Your task to perform on an android device: turn pop-ups off in chrome Image 0: 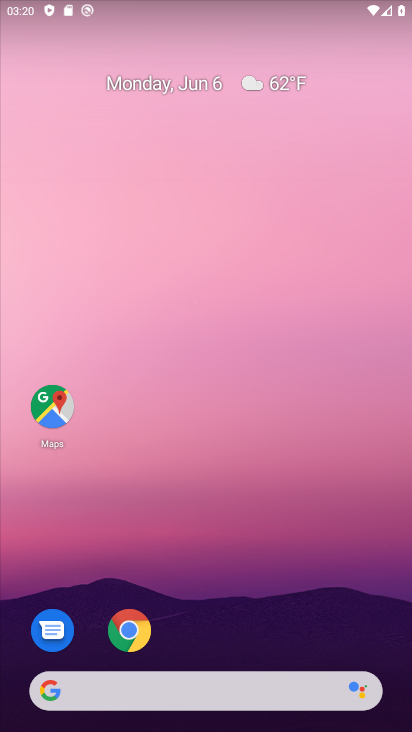
Step 0: click (122, 638)
Your task to perform on an android device: turn pop-ups off in chrome Image 1: 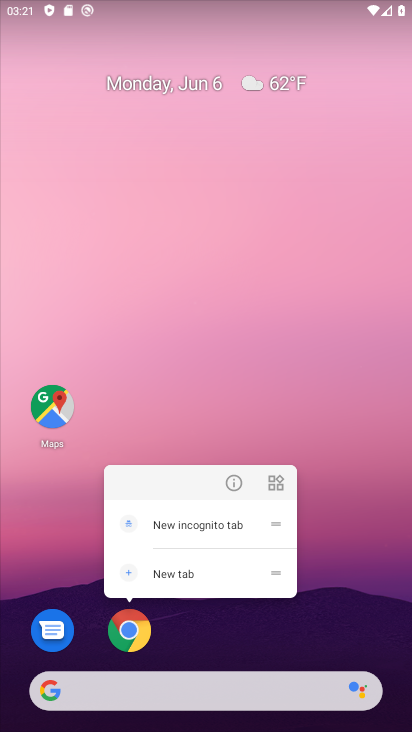
Step 1: click (115, 630)
Your task to perform on an android device: turn pop-ups off in chrome Image 2: 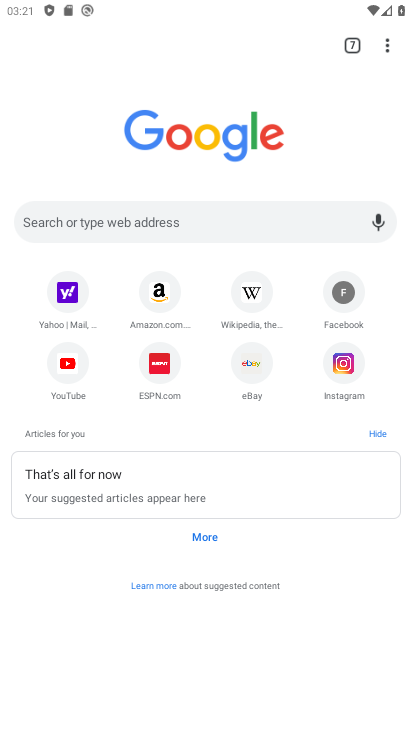
Step 2: drag from (386, 50) to (215, 391)
Your task to perform on an android device: turn pop-ups off in chrome Image 3: 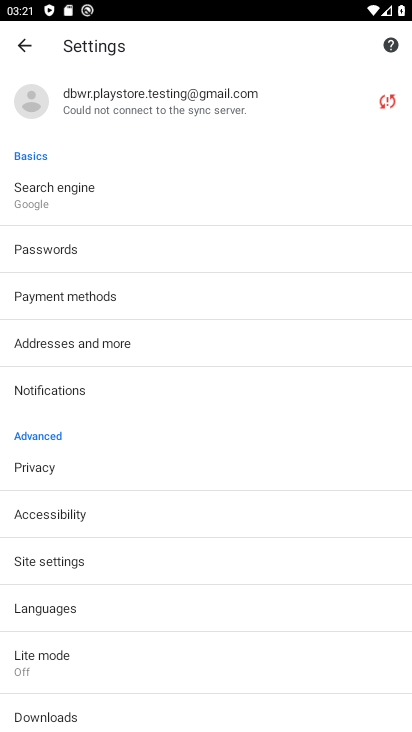
Step 3: click (49, 569)
Your task to perform on an android device: turn pop-ups off in chrome Image 4: 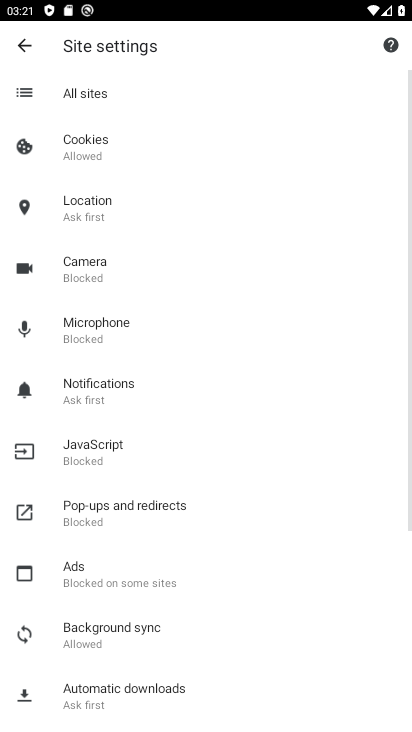
Step 4: click (74, 496)
Your task to perform on an android device: turn pop-ups off in chrome Image 5: 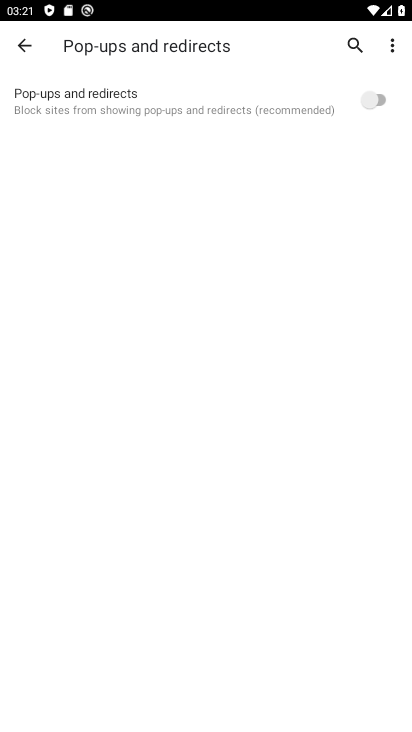
Step 5: task complete